Your task to perform on an android device: set the stopwatch Image 0: 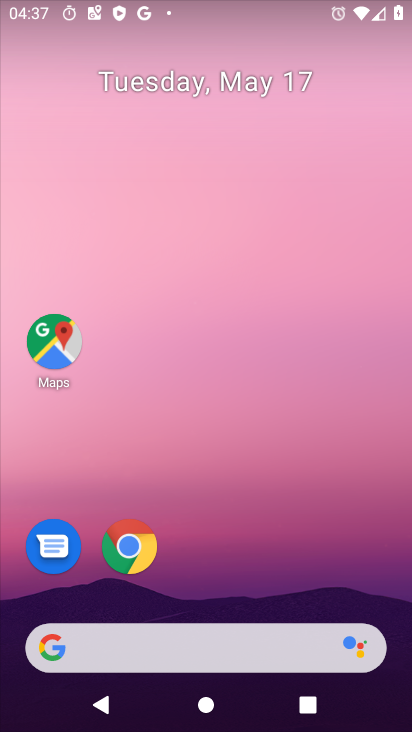
Step 0: drag from (396, 488) to (386, 424)
Your task to perform on an android device: set the stopwatch Image 1: 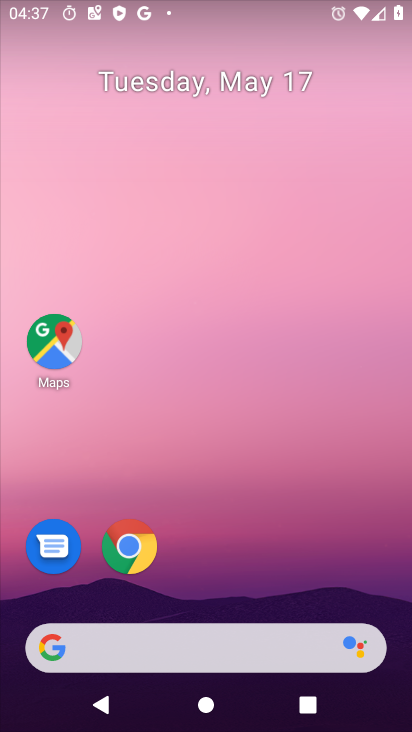
Step 1: drag from (404, 590) to (387, 487)
Your task to perform on an android device: set the stopwatch Image 2: 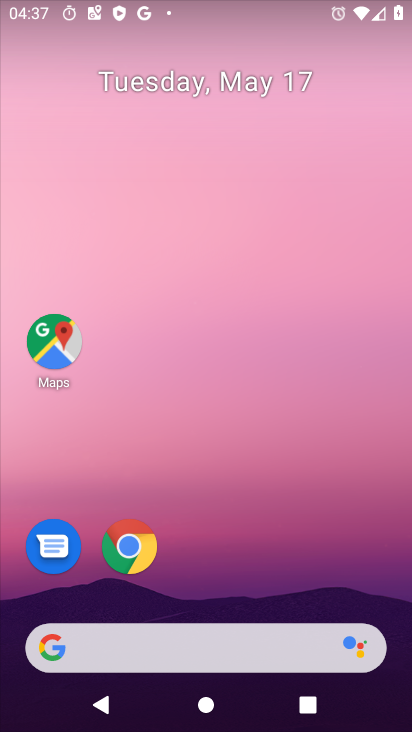
Step 2: drag from (403, 628) to (391, 293)
Your task to perform on an android device: set the stopwatch Image 3: 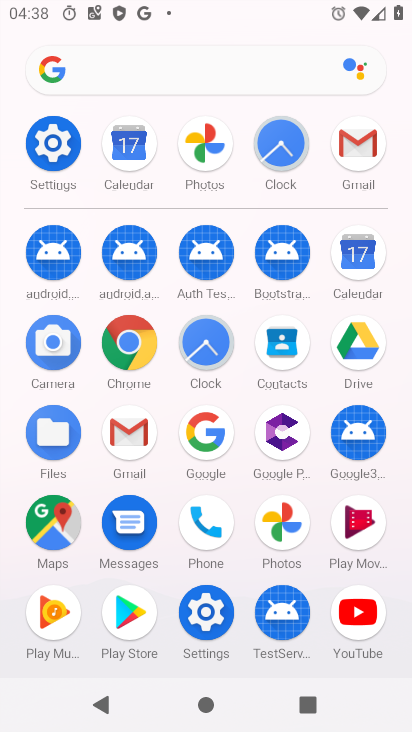
Step 3: click (215, 328)
Your task to perform on an android device: set the stopwatch Image 4: 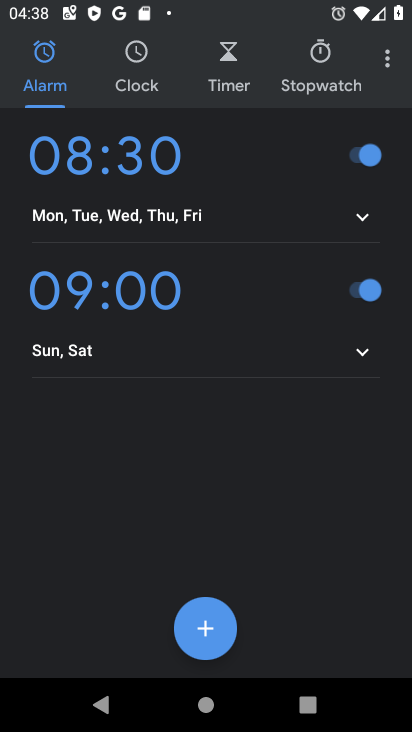
Step 4: click (309, 53)
Your task to perform on an android device: set the stopwatch Image 5: 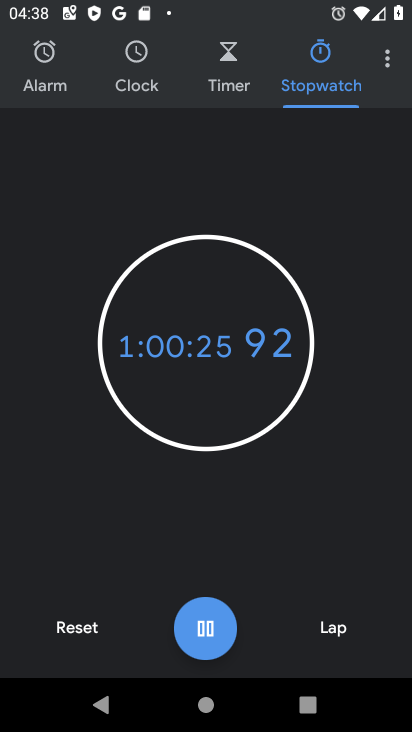
Step 5: click (59, 629)
Your task to perform on an android device: set the stopwatch Image 6: 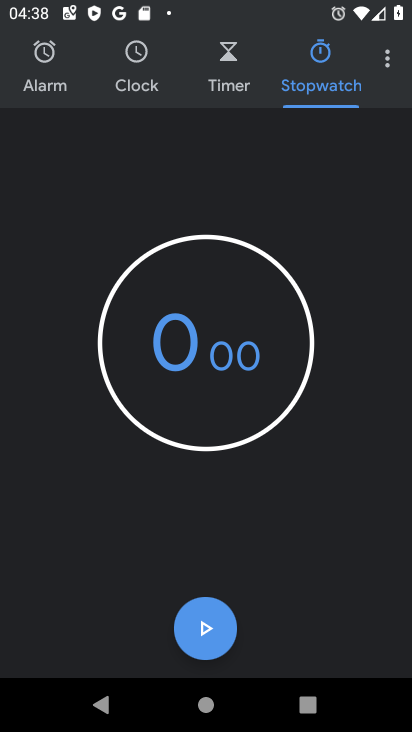
Step 6: click (202, 645)
Your task to perform on an android device: set the stopwatch Image 7: 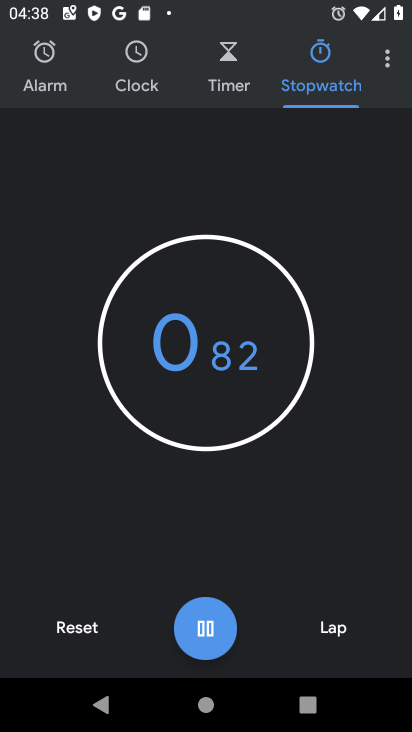
Step 7: task complete